Your task to perform on an android device: Show me productivity apps on the Play Store Image 0: 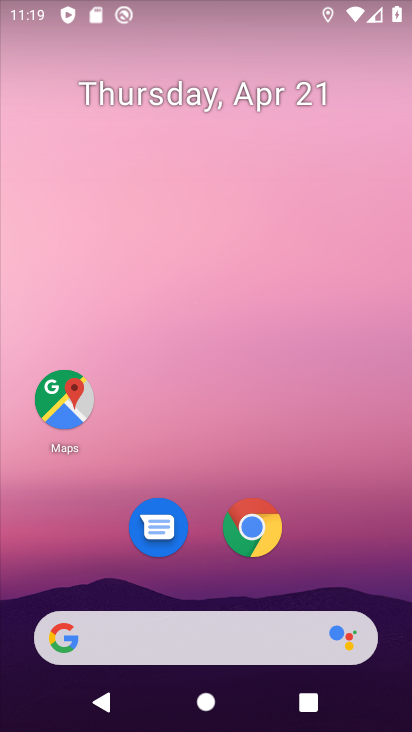
Step 0: drag from (160, 611) to (267, 117)
Your task to perform on an android device: Show me productivity apps on the Play Store Image 1: 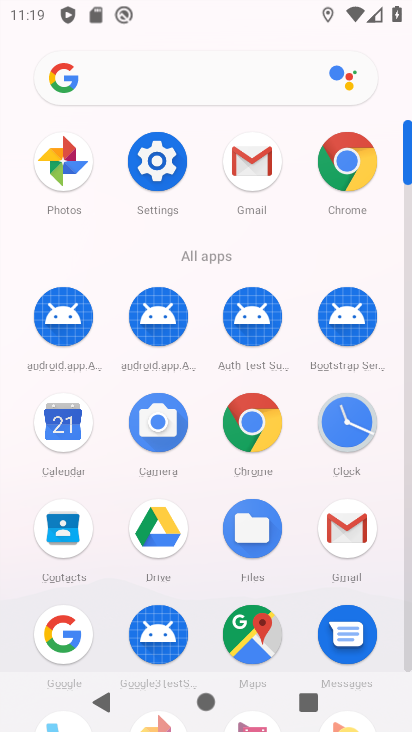
Step 1: drag from (187, 627) to (258, 327)
Your task to perform on an android device: Show me productivity apps on the Play Store Image 2: 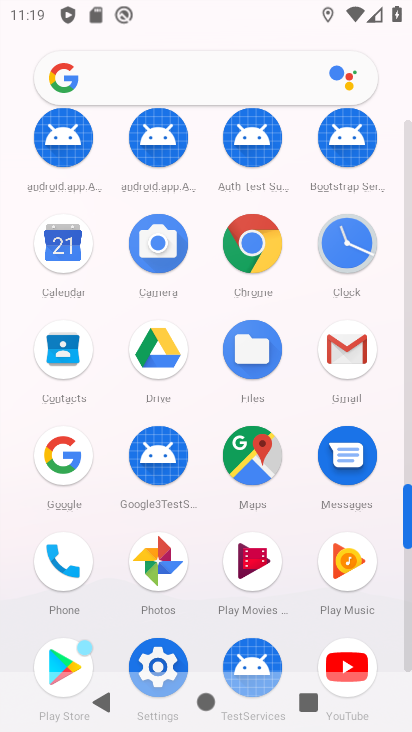
Step 2: drag from (149, 604) to (215, 344)
Your task to perform on an android device: Show me productivity apps on the Play Store Image 3: 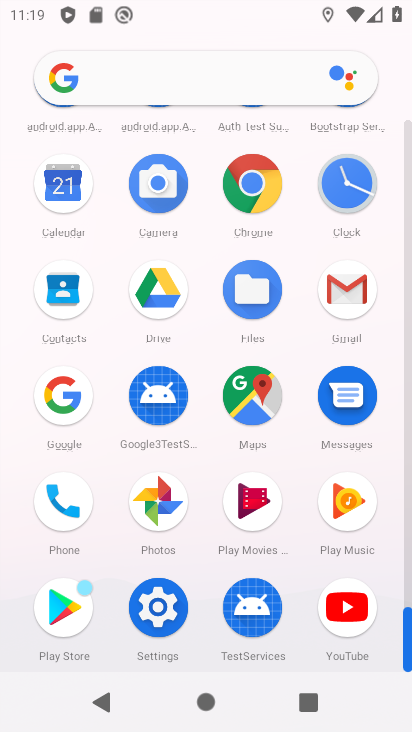
Step 3: click (61, 608)
Your task to perform on an android device: Show me productivity apps on the Play Store Image 4: 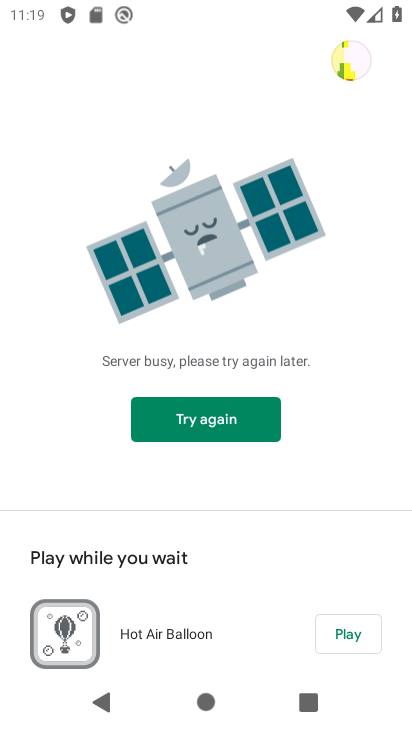
Step 4: task complete